Your task to perform on an android device: turn vacation reply on in the gmail app Image 0: 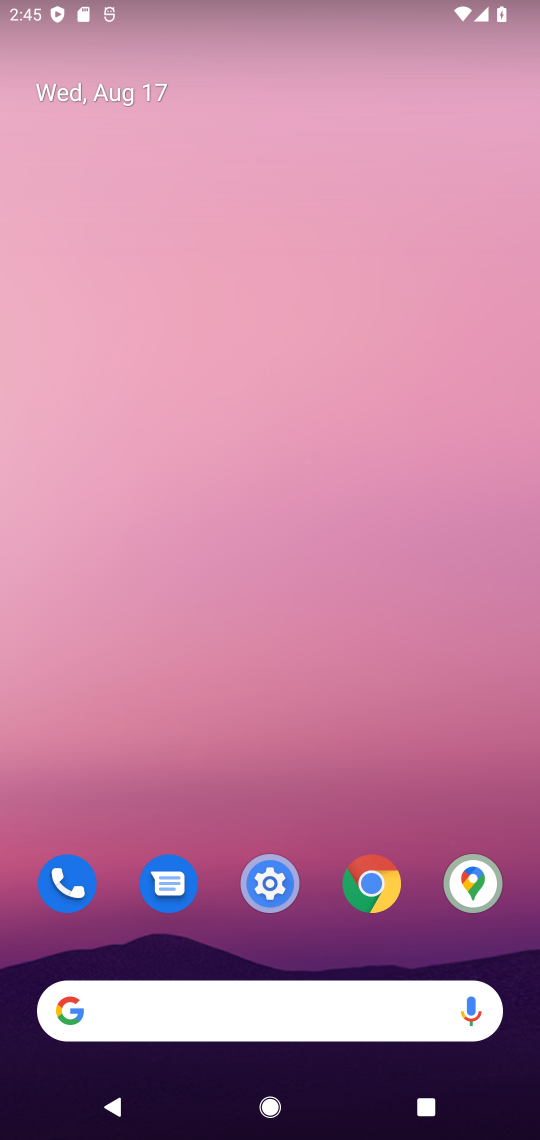
Step 0: drag from (316, 928) to (214, 139)
Your task to perform on an android device: turn vacation reply on in the gmail app Image 1: 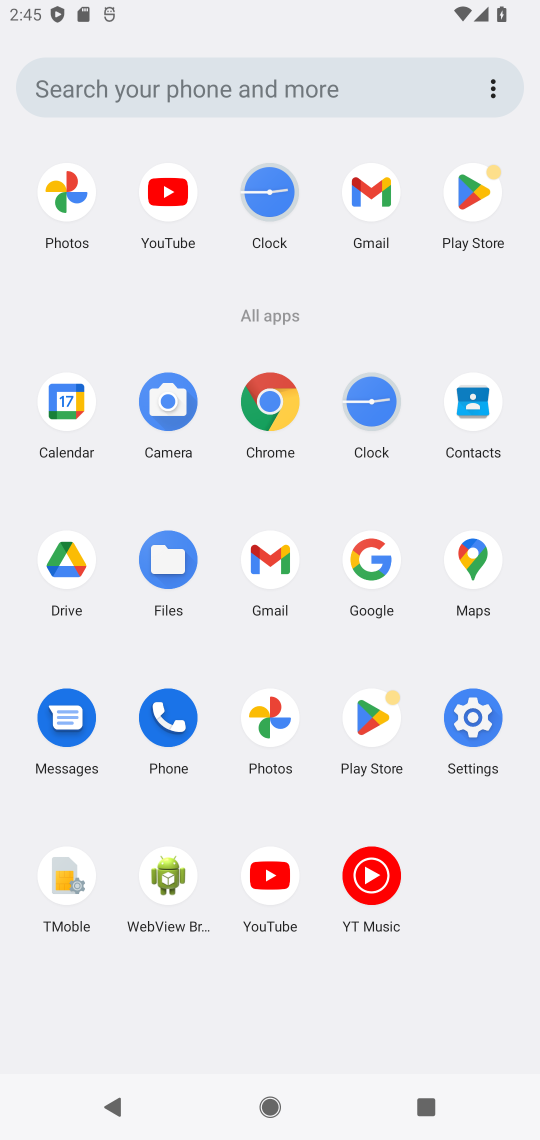
Step 1: click (293, 562)
Your task to perform on an android device: turn vacation reply on in the gmail app Image 2: 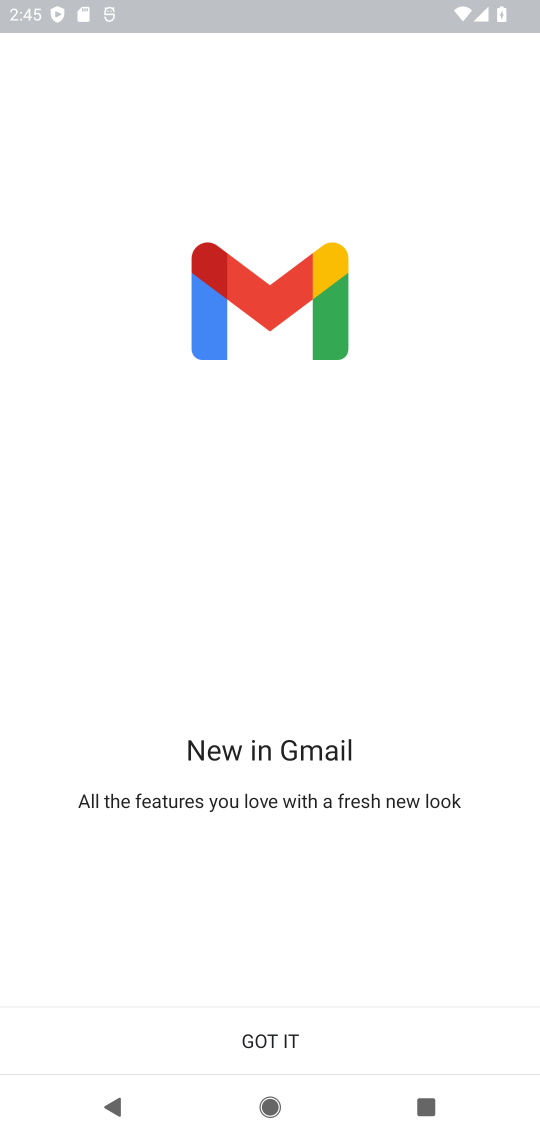
Step 2: click (350, 1058)
Your task to perform on an android device: turn vacation reply on in the gmail app Image 3: 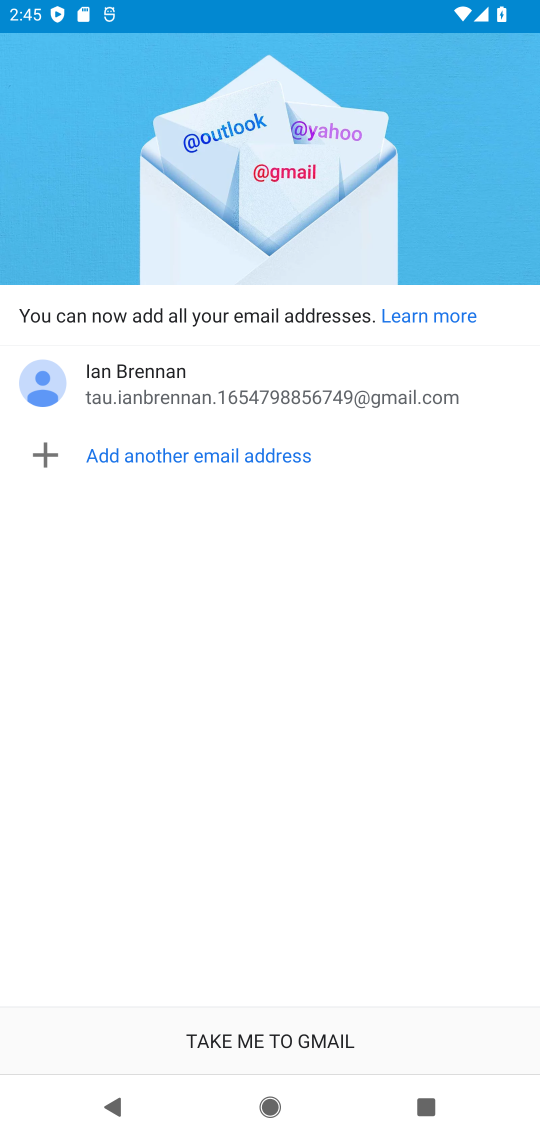
Step 3: click (343, 1058)
Your task to perform on an android device: turn vacation reply on in the gmail app Image 4: 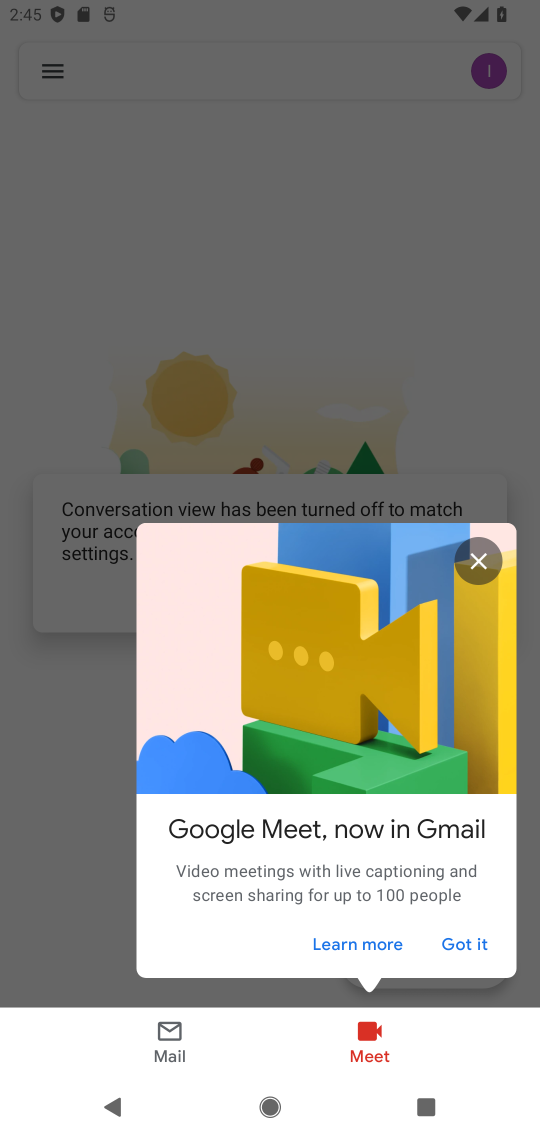
Step 4: click (451, 942)
Your task to perform on an android device: turn vacation reply on in the gmail app Image 5: 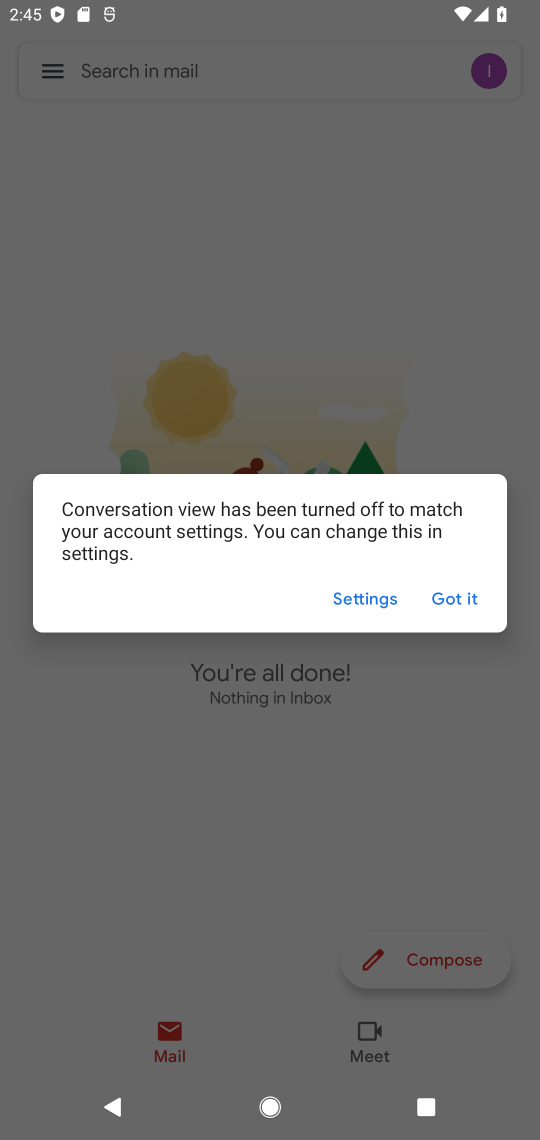
Step 5: click (449, 593)
Your task to perform on an android device: turn vacation reply on in the gmail app Image 6: 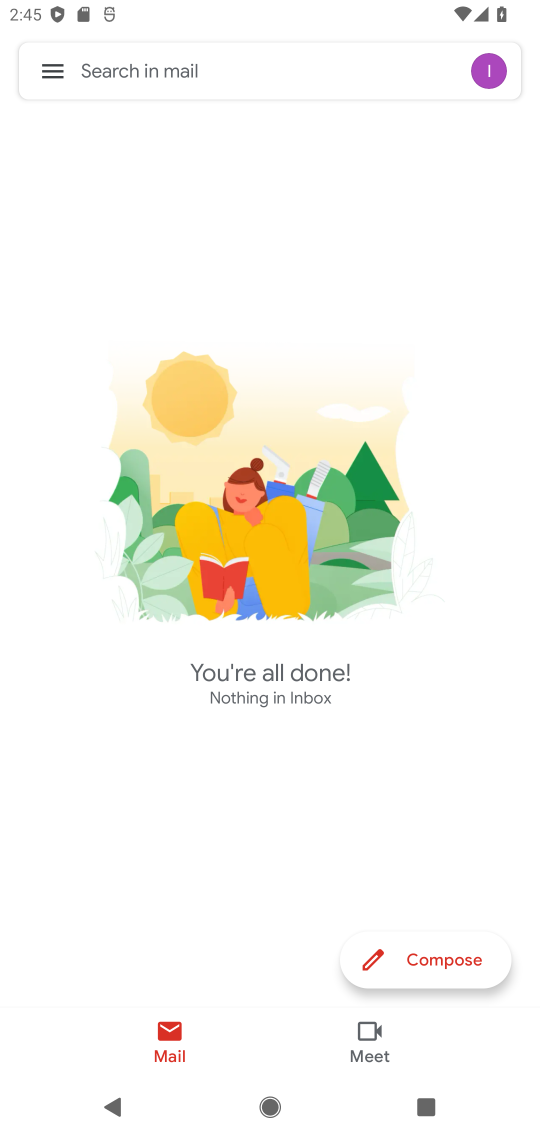
Step 6: click (48, 70)
Your task to perform on an android device: turn vacation reply on in the gmail app Image 7: 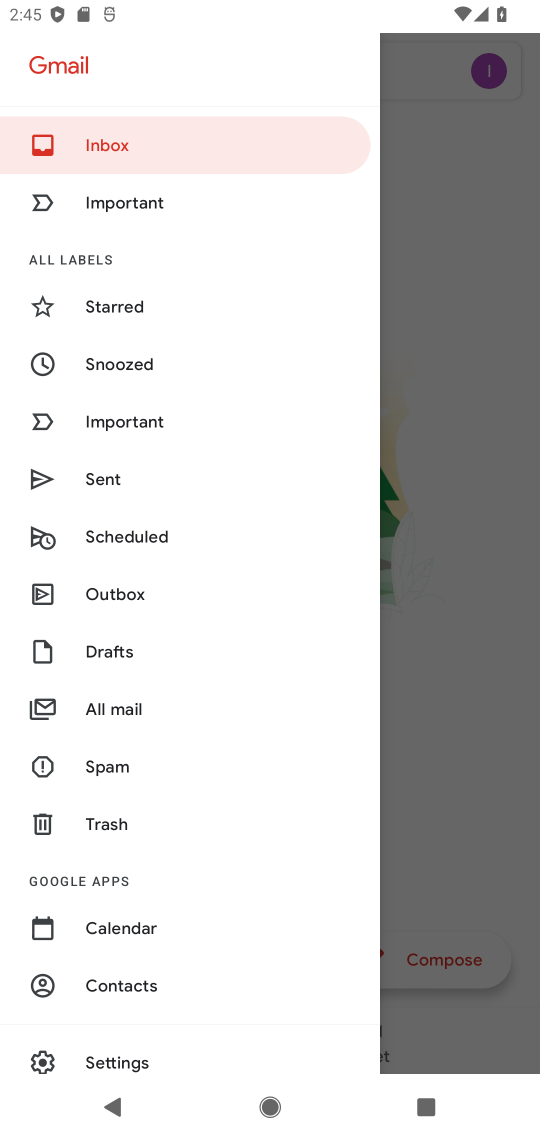
Step 7: drag from (149, 967) to (188, 209)
Your task to perform on an android device: turn vacation reply on in the gmail app Image 8: 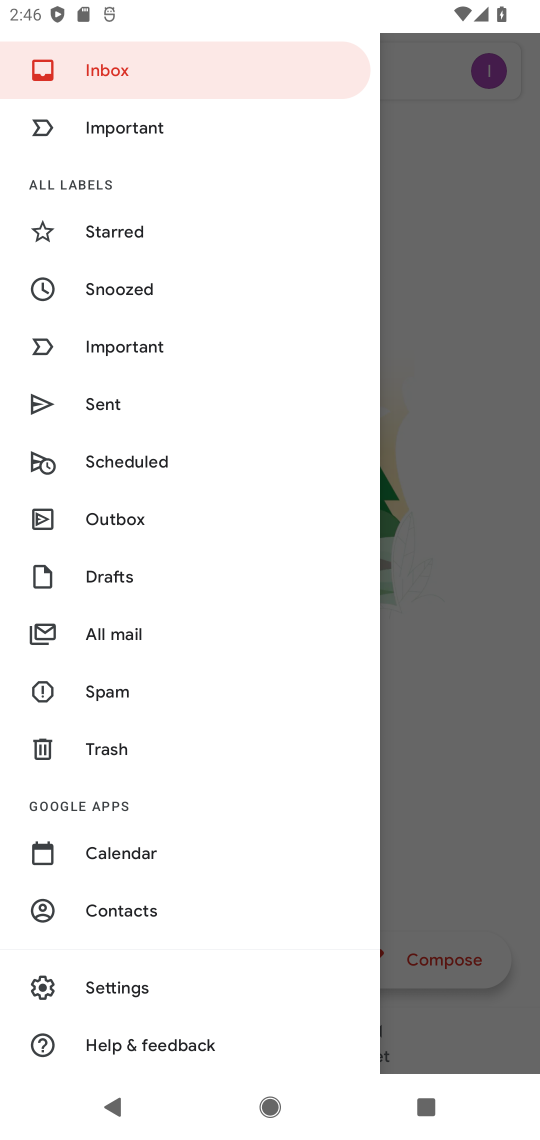
Step 8: click (118, 989)
Your task to perform on an android device: turn vacation reply on in the gmail app Image 9: 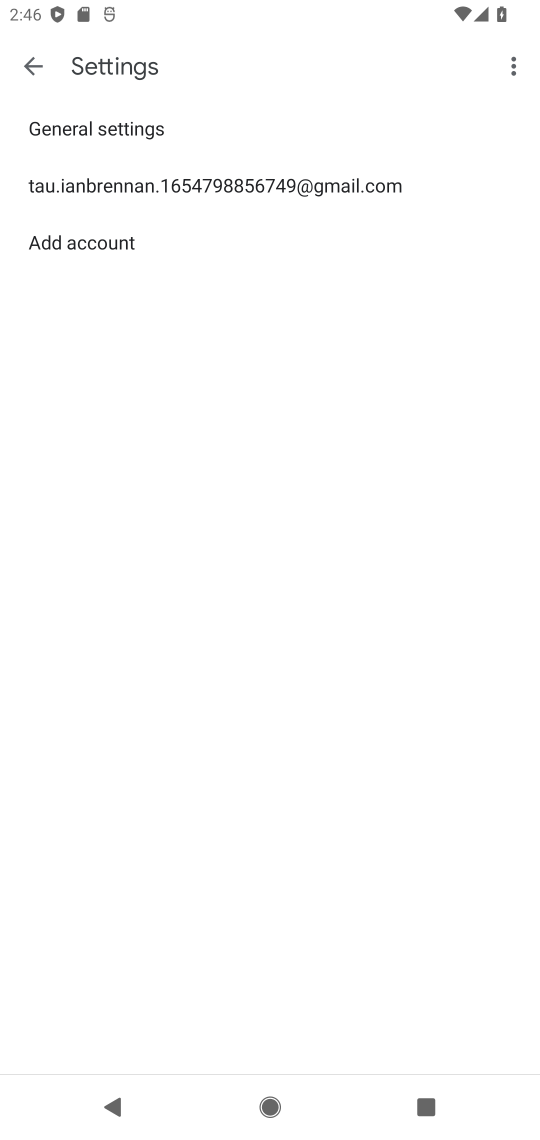
Step 9: click (143, 185)
Your task to perform on an android device: turn vacation reply on in the gmail app Image 10: 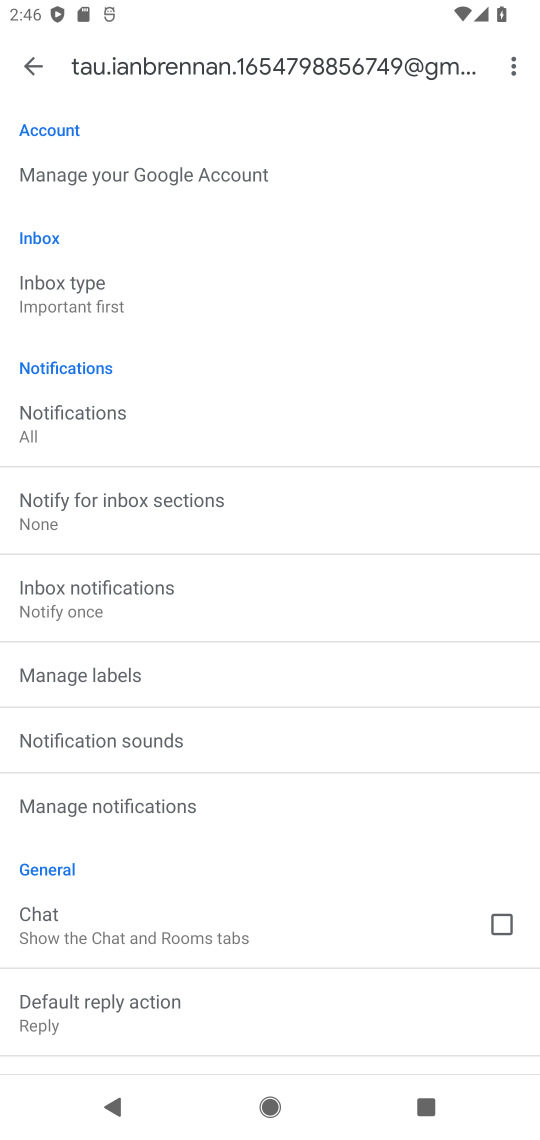
Step 10: drag from (246, 940) to (316, 160)
Your task to perform on an android device: turn vacation reply on in the gmail app Image 11: 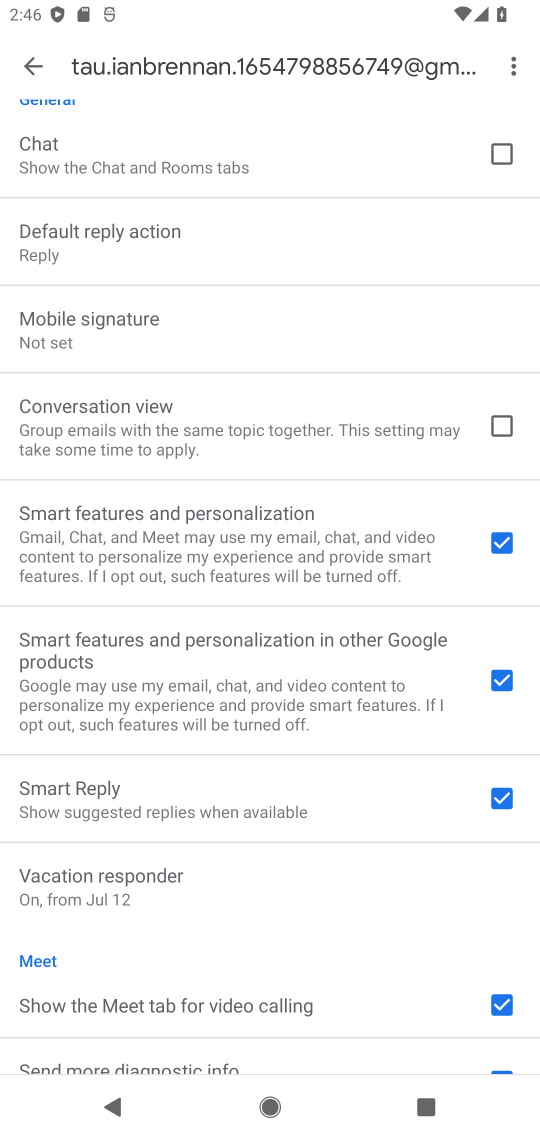
Step 11: drag from (348, 994) to (340, 576)
Your task to perform on an android device: turn vacation reply on in the gmail app Image 12: 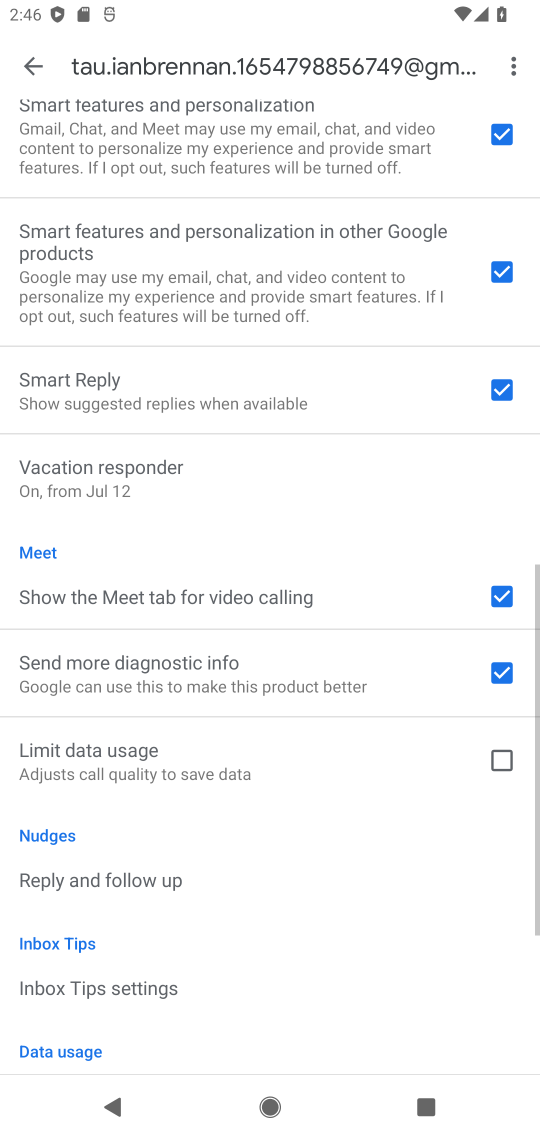
Step 12: click (137, 471)
Your task to perform on an android device: turn vacation reply on in the gmail app Image 13: 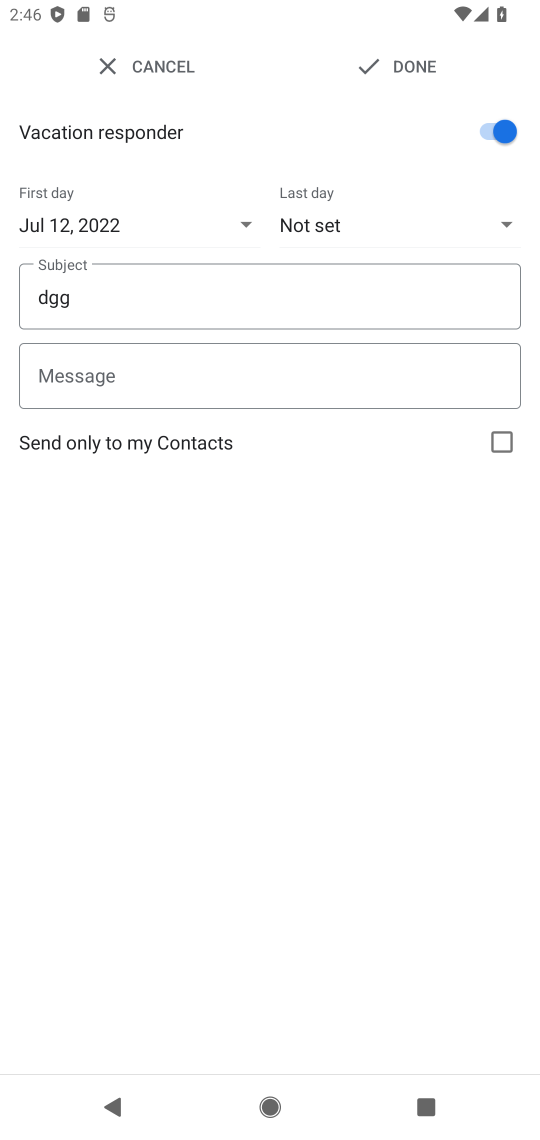
Step 13: task complete